Your task to perform on an android device: toggle pop-ups in chrome Image 0: 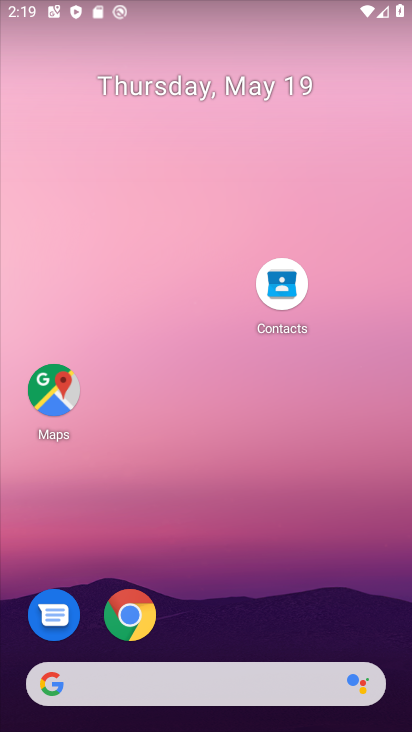
Step 0: drag from (256, 669) to (259, 117)
Your task to perform on an android device: toggle pop-ups in chrome Image 1: 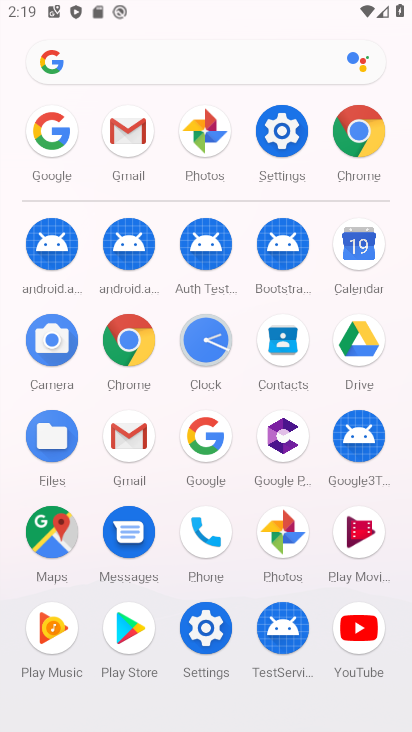
Step 1: click (127, 365)
Your task to perform on an android device: toggle pop-ups in chrome Image 2: 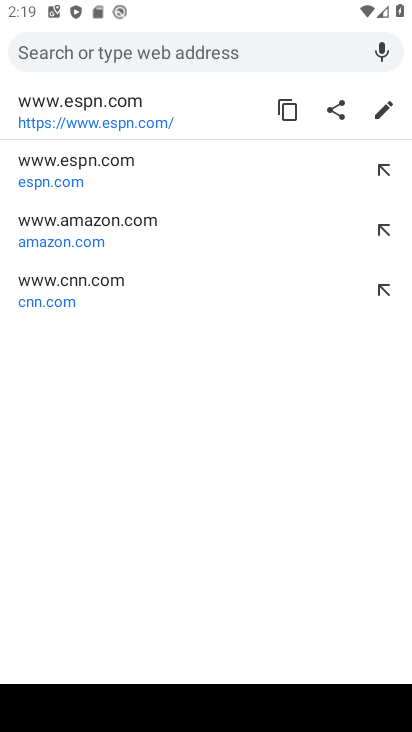
Step 2: press back button
Your task to perform on an android device: toggle pop-ups in chrome Image 3: 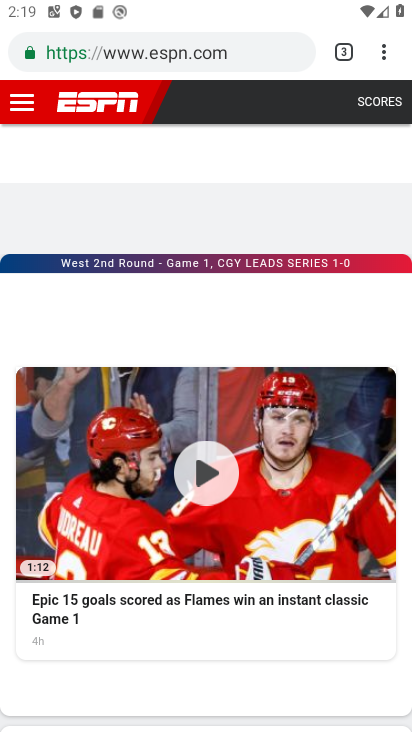
Step 3: click (391, 59)
Your task to perform on an android device: toggle pop-ups in chrome Image 4: 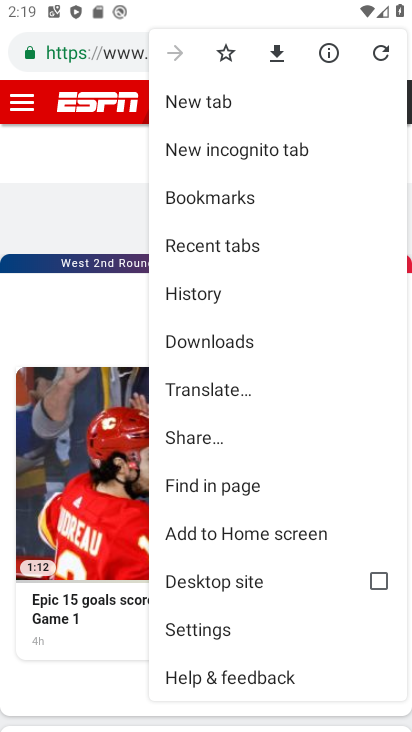
Step 4: drag from (234, 577) to (246, 368)
Your task to perform on an android device: toggle pop-ups in chrome Image 5: 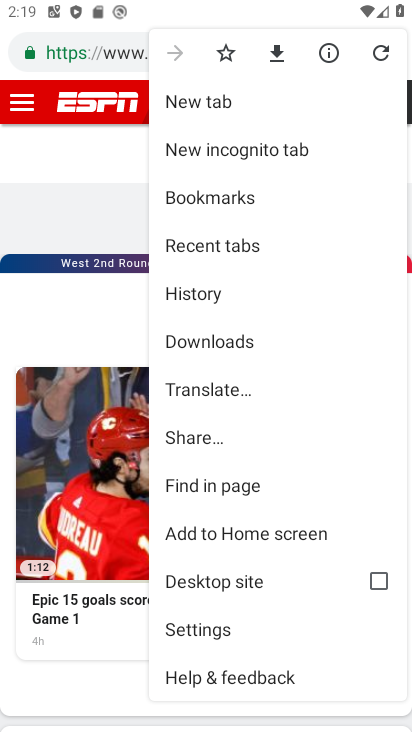
Step 5: click (241, 620)
Your task to perform on an android device: toggle pop-ups in chrome Image 6: 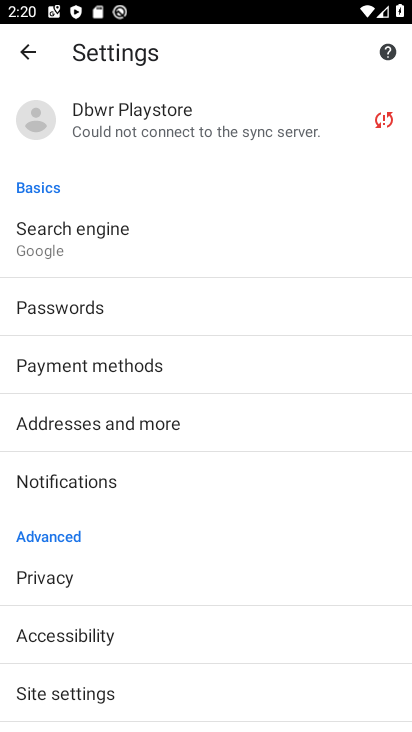
Step 6: drag from (210, 626) to (223, 293)
Your task to perform on an android device: toggle pop-ups in chrome Image 7: 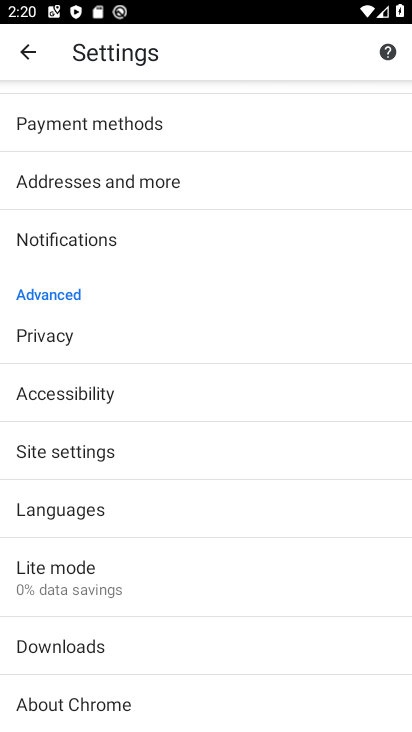
Step 7: click (122, 461)
Your task to perform on an android device: toggle pop-ups in chrome Image 8: 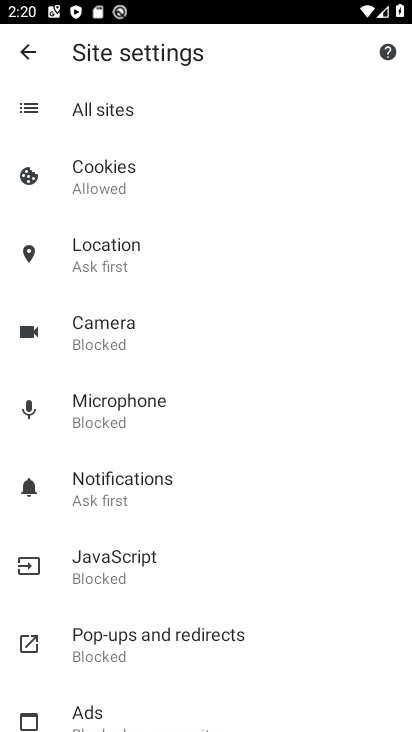
Step 8: click (123, 637)
Your task to perform on an android device: toggle pop-ups in chrome Image 9: 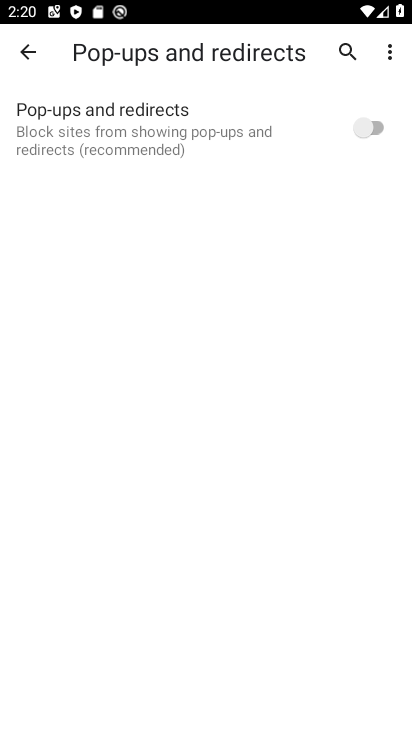
Step 9: click (378, 128)
Your task to perform on an android device: toggle pop-ups in chrome Image 10: 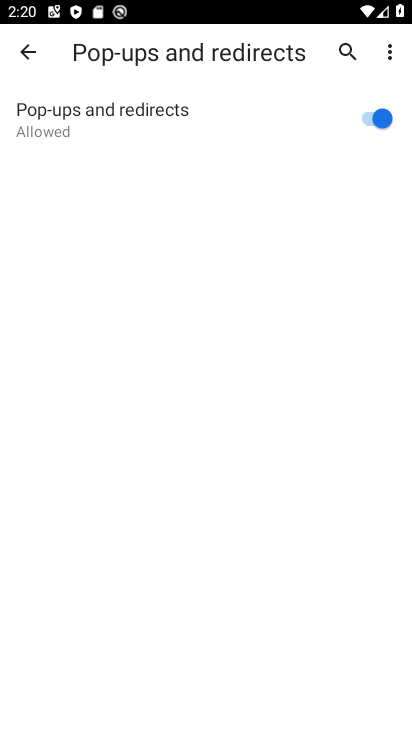
Step 10: task complete